Your task to perform on an android device: turn on the 12-hour format for clock Image 0: 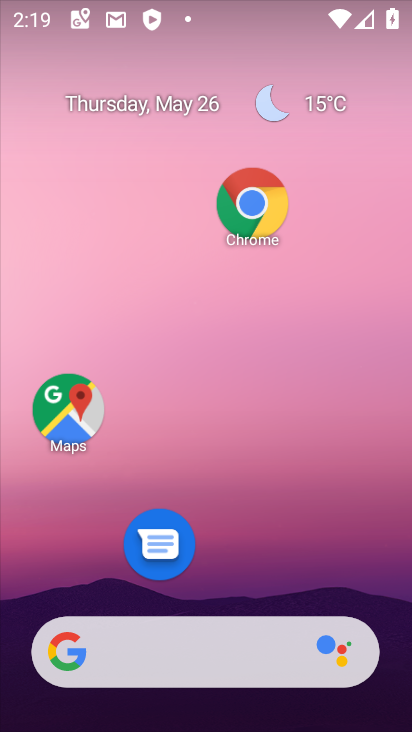
Step 0: drag from (167, 716) to (241, 178)
Your task to perform on an android device: turn on the 12-hour format for clock Image 1: 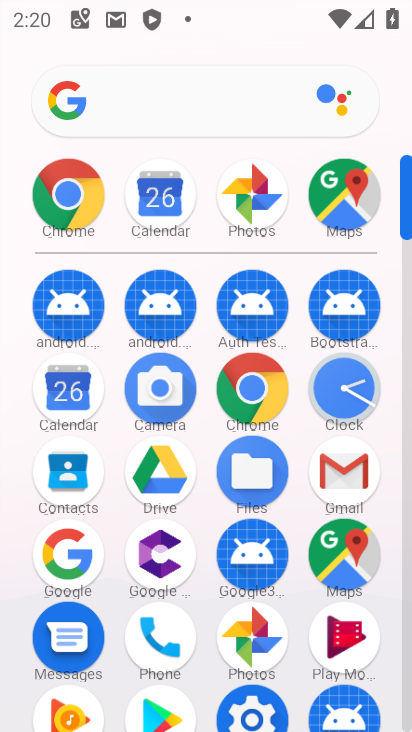
Step 1: click (346, 397)
Your task to perform on an android device: turn on the 12-hour format for clock Image 2: 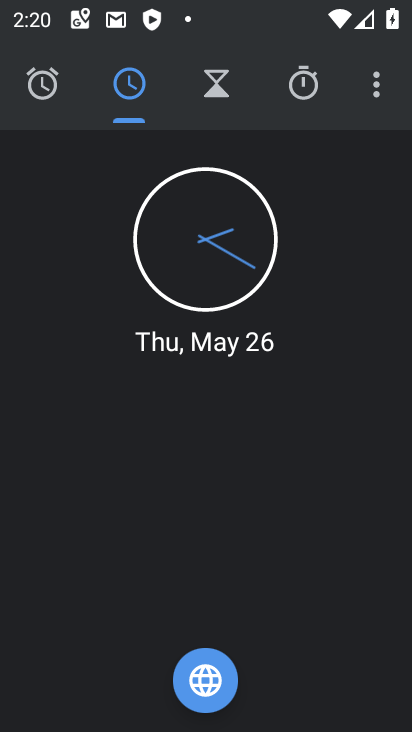
Step 2: click (377, 79)
Your task to perform on an android device: turn on the 12-hour format for clock Image 3: 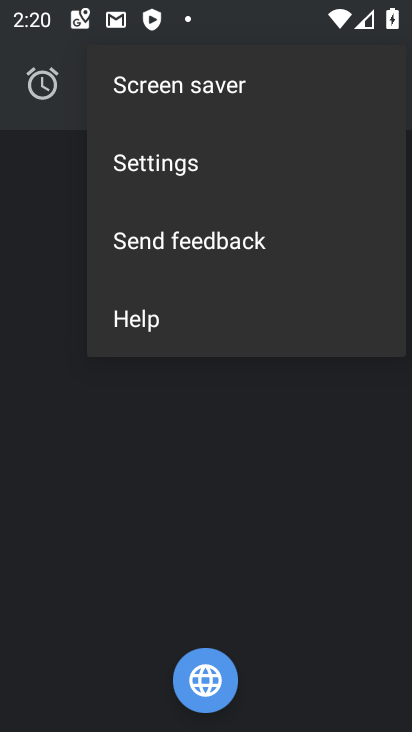
Step 3: click (218, 177)
Your task to perform on an android device: turn on the 12-hour format for clock Image 4: 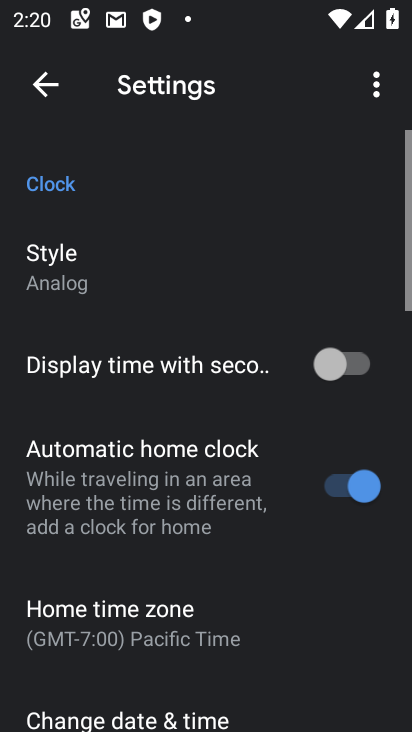
Step 4: drag from (204, 640) to (258, 184)
Your task to perform on an android device: turn on the 12-hour format for clock Image 5: 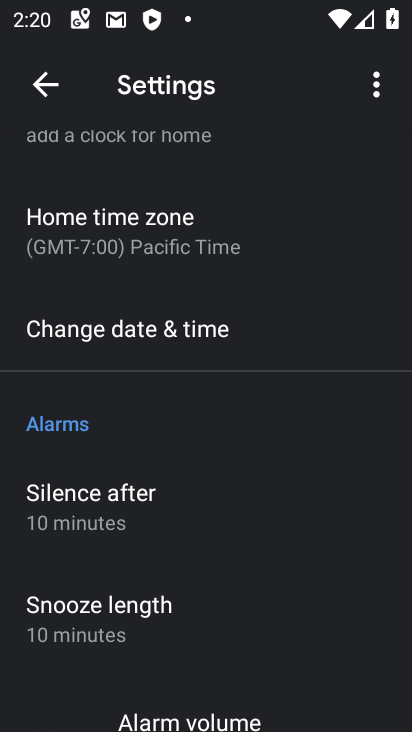
Step 5: click (233, 319)
Your task to perform on an android device: turn on the 12-hour format for clock Image 6: 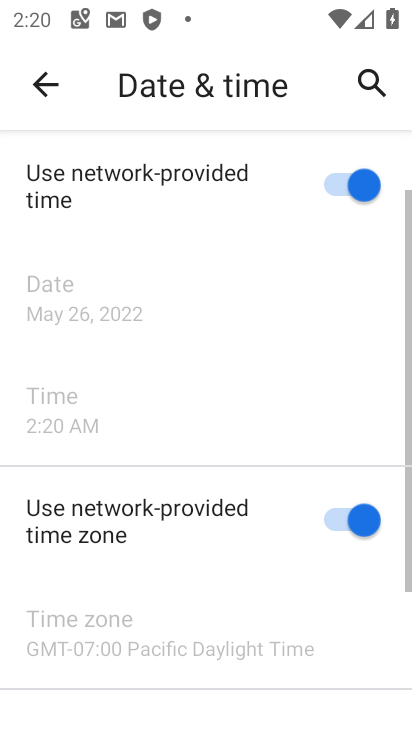
Step 6: task complete